Your task to perform on an android device: set the timer Image 0: 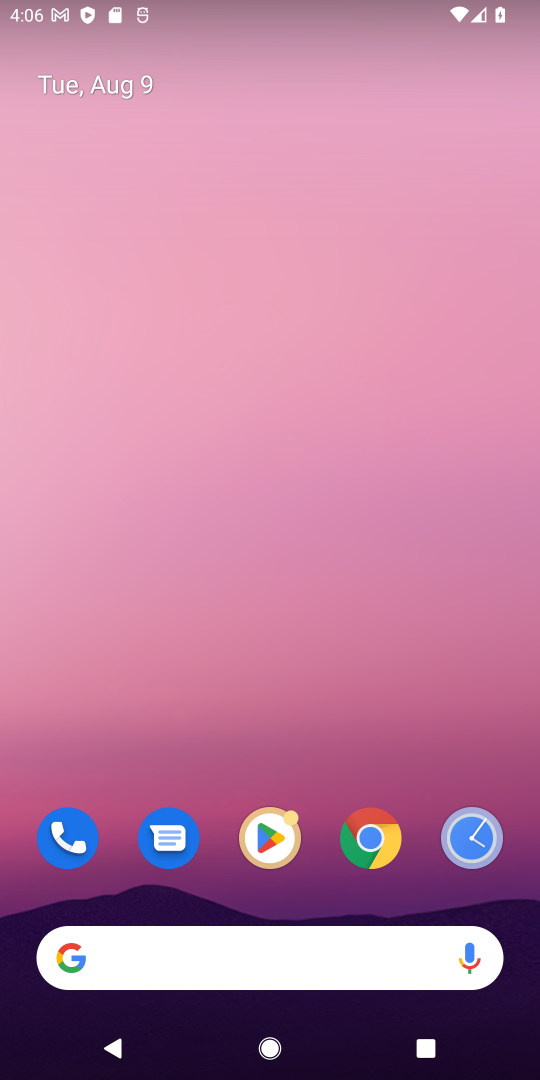
Step 0: click (483, 835)
Your task to perform on an android device: set the timer Image 1: 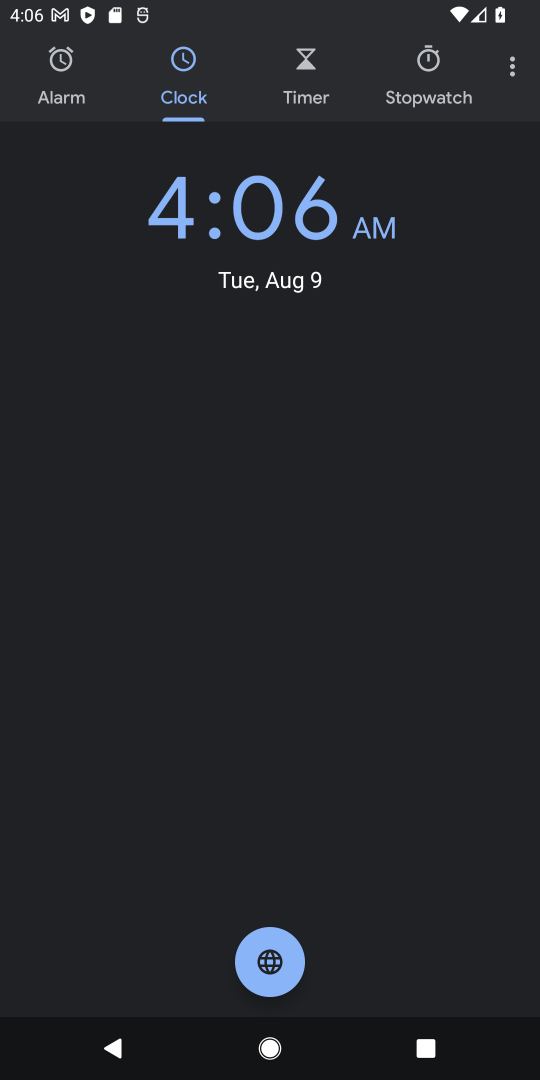
Step 1: click (314, 94)
Your task to perform on an android device: set the timer Image 2: 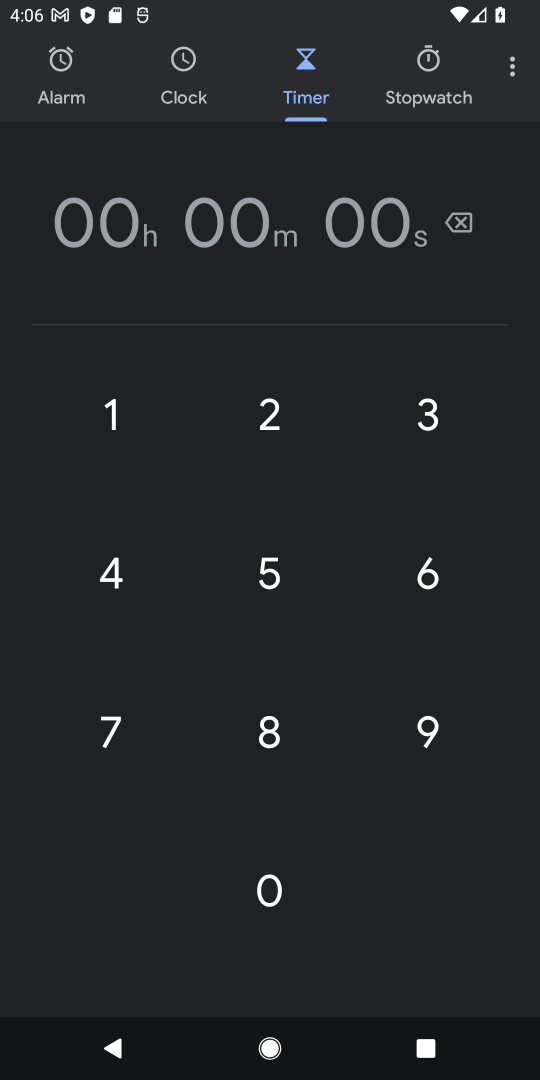
Step 2: type "10000"
Your task to perform on an android device: set the timer Image 3: 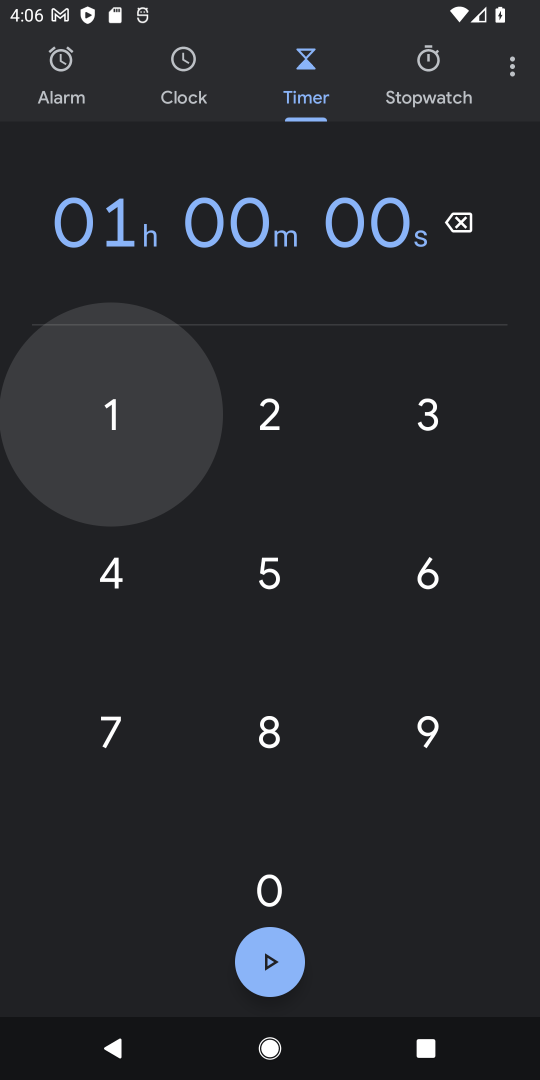
Step 3: click (277, 967)
Your task to perform on an android device: set the timer Image 4: 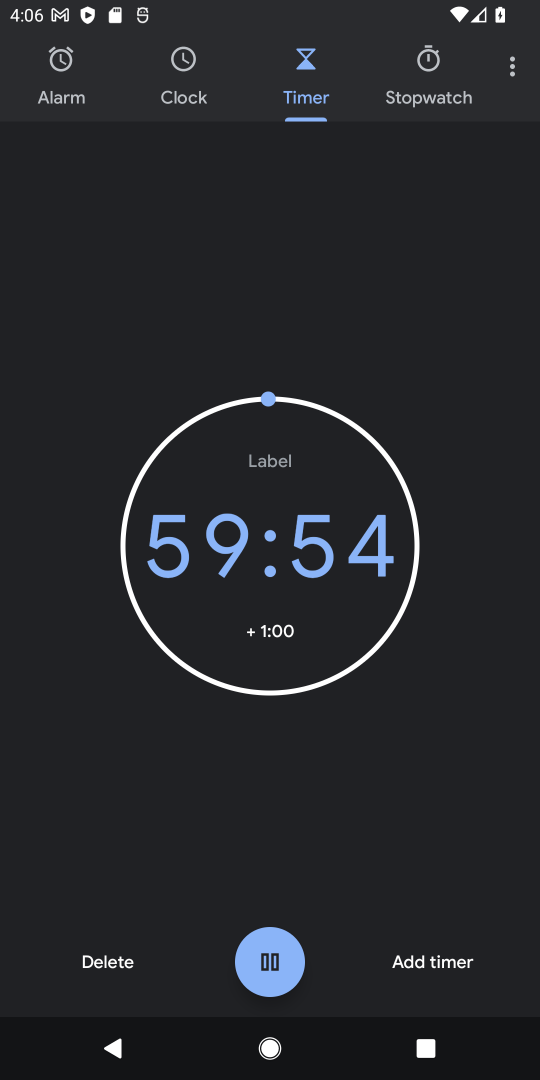
Step 4: task complete